Your task to perform on an android device: What's on my calendar today? Image 0: 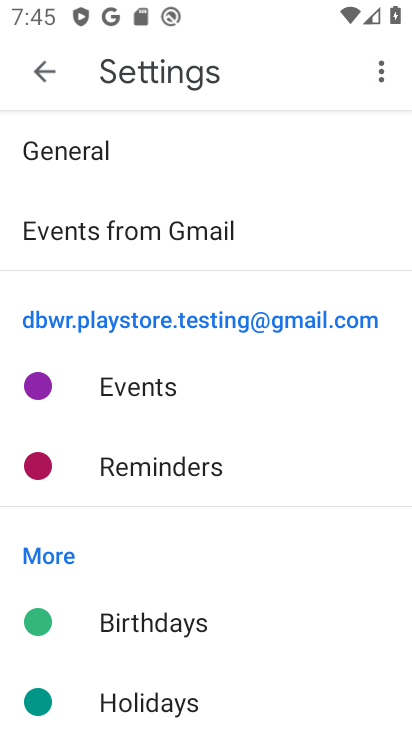
Step 0: press home button
Your task to perform on an android device: What's on my calendar today? Image 1: 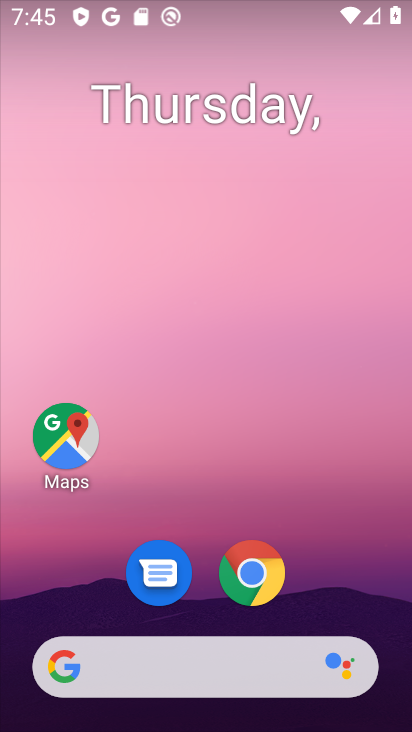
Step 1: drag from (321, 591) to (321, 222)
Your task to perform on an android device: What's on my calendar today? Image 2: 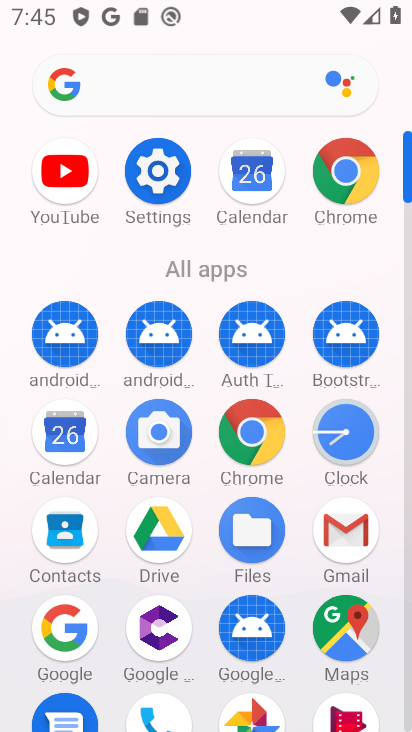
Step 2: click (57, 443)
Your task to perform on an android device: What's on my calendar today? Image 3: 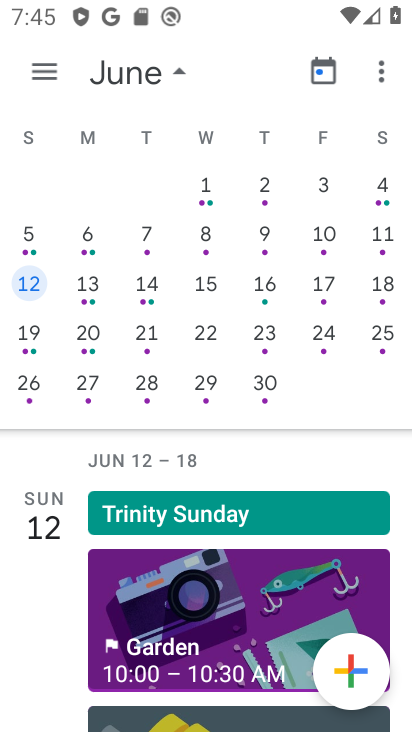
Step 3: drag from (82, 194) to (329, 219)
Your task to perform on an android device: What's on my calendar today? Image 4: 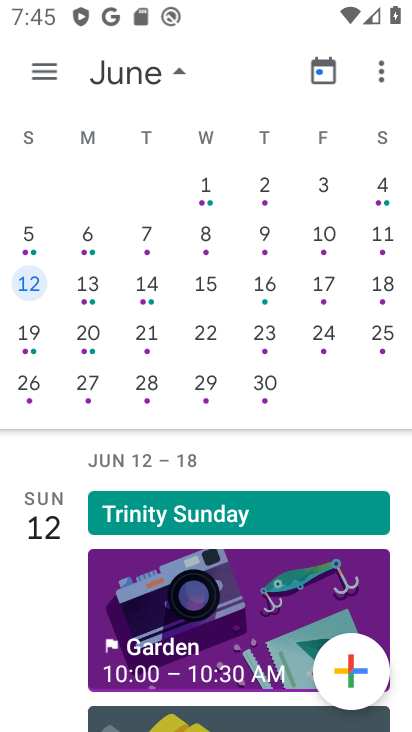
Step 4: drag from (124, 250) to (354, 279)
Your task to perform on an android device: What's on my calendar today? Image 5: 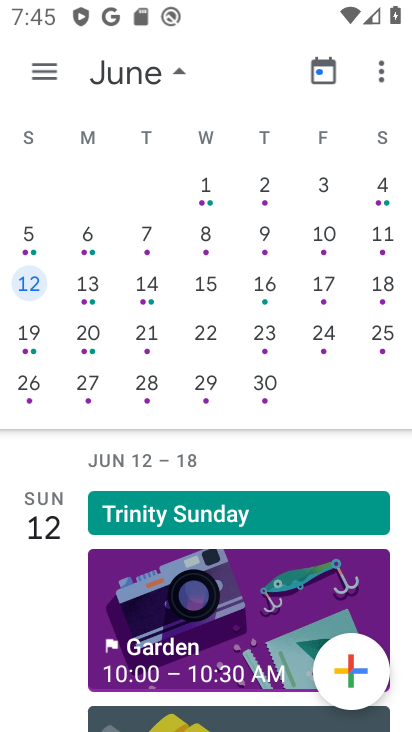
Step 5: drag from (60, 328) to (374, 319)
Your task to perform on an android device: What's on my calendar today? Image 6: 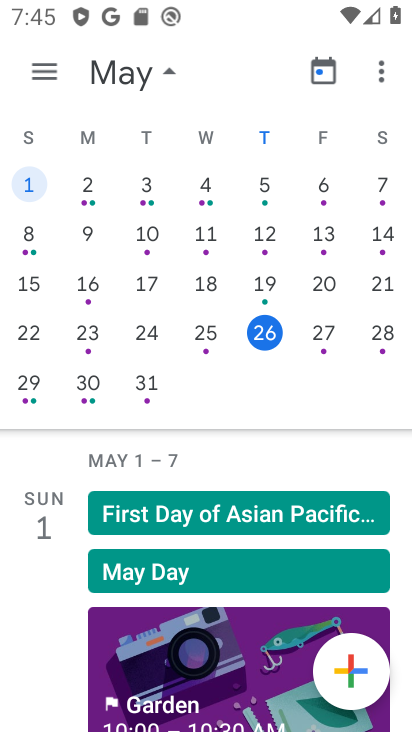
Step 6: click (265, 323)
Your task to perform on an android device: What's on my calendar today? Image 7: 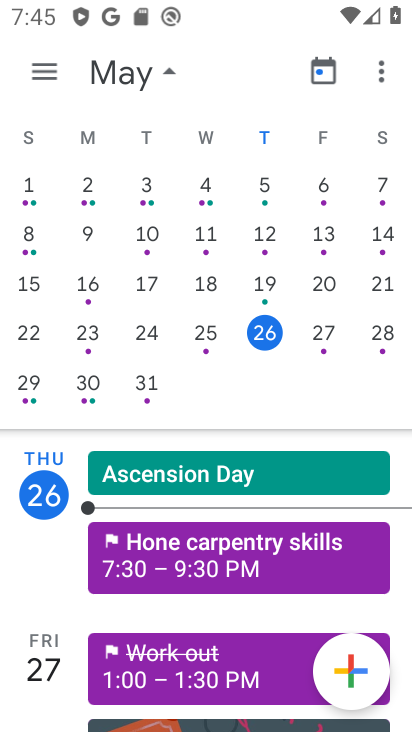
Step 7: task complete